Your task to perform on an android device: toggle wifi Image 0: 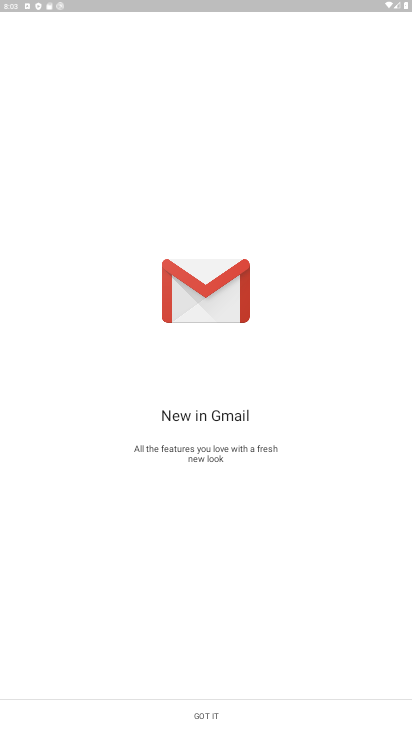
Step 0: press home button
Your task to perform on an android device: toggle wifi Image 1: 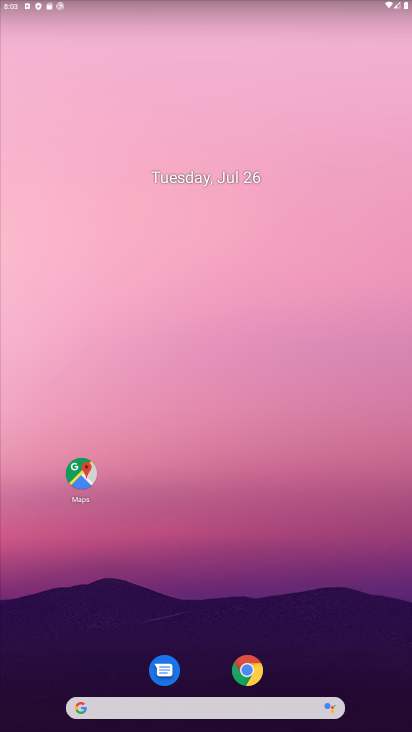
Step 1: drag from (199, 632) to (222, 120)
Your task to perform on an android device: toggle wifi Image 2: 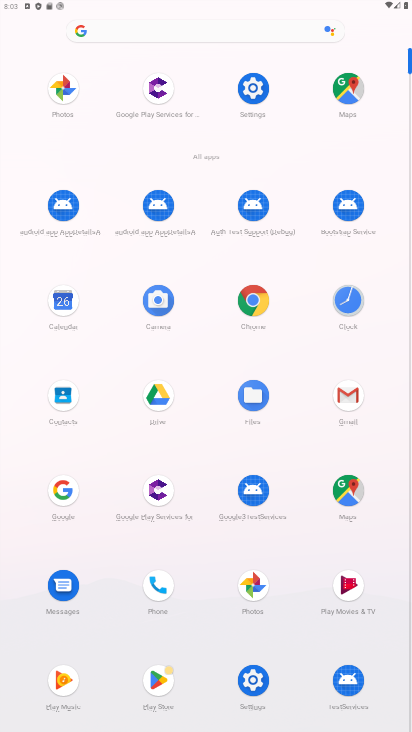
Step 2: click (247, 95)
Your task to perform on an android device: toggle wifi Image 3: 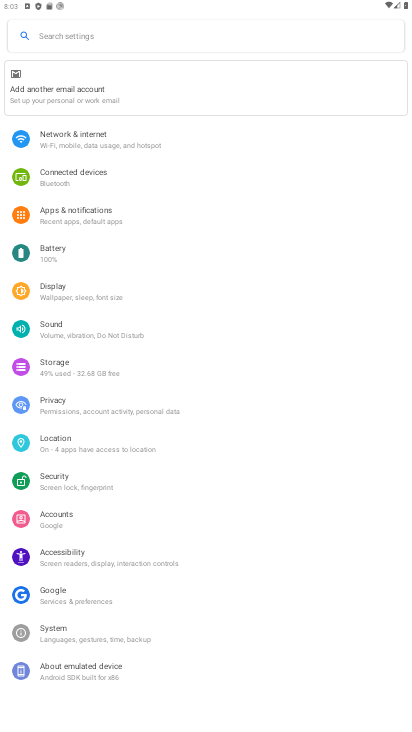
Step 3: click (116, 141)
Your task to perform on an android device: toggle wifi Image 4: 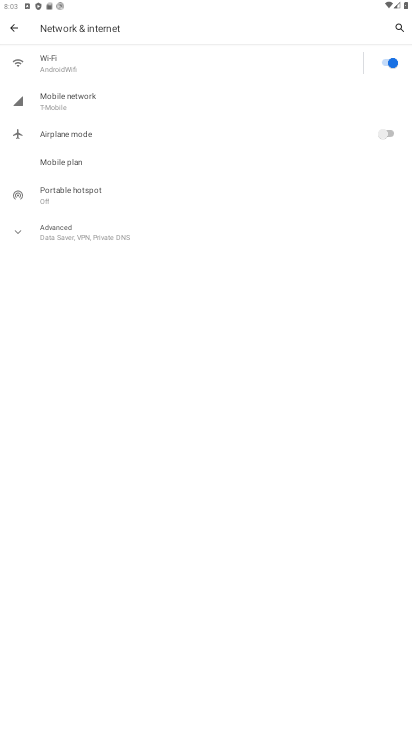
Step 4: click (382, 62)
Your task to perform on an android device: toggle wifi Image 5: 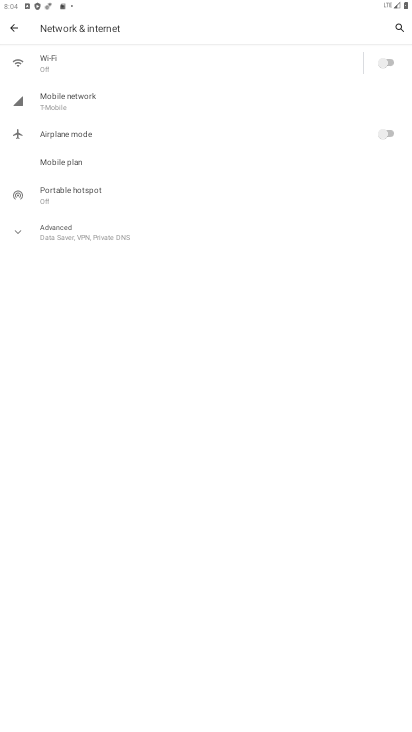
Step 5: task complete